Your task to perform on an android device: Open Maps and search for coffee Image 0: 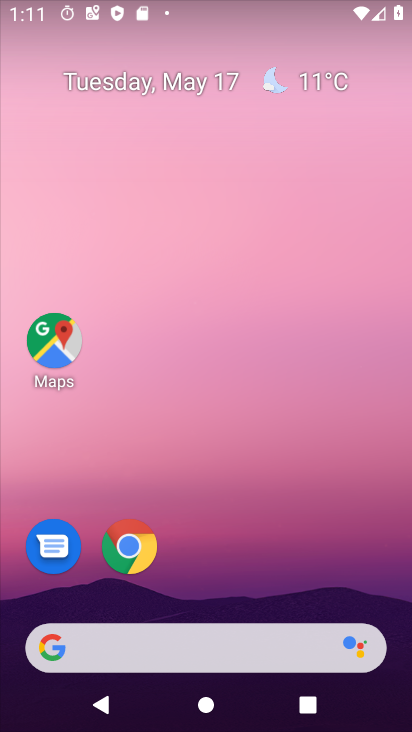
Step 0: click (58, 346)
Your task to perform on an android device: Open Maps and search for coffee Image 1: 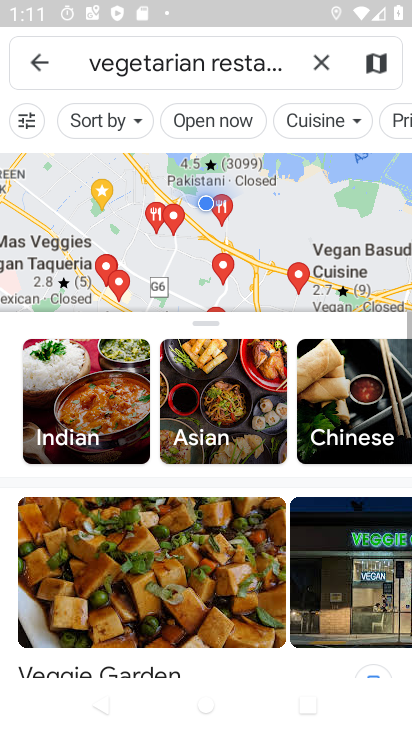
Step 1: click (322, 64)
Your task to perform on an android device: Open Maps and search for coffee Image 2: 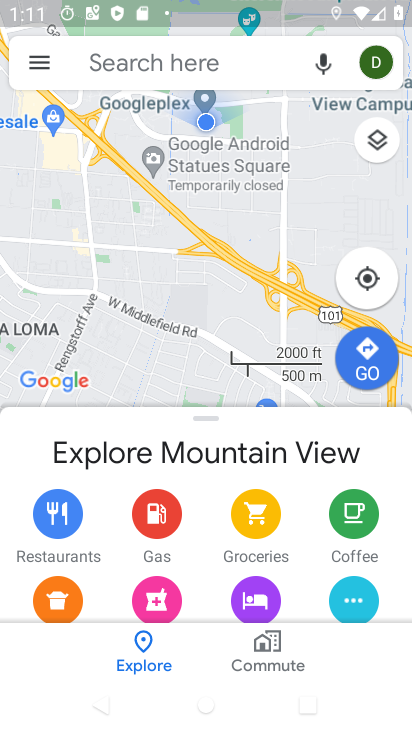
Step 2: click (230, 71)
Your task to perform on an android device: Open Maps and search for coffee Image 3: 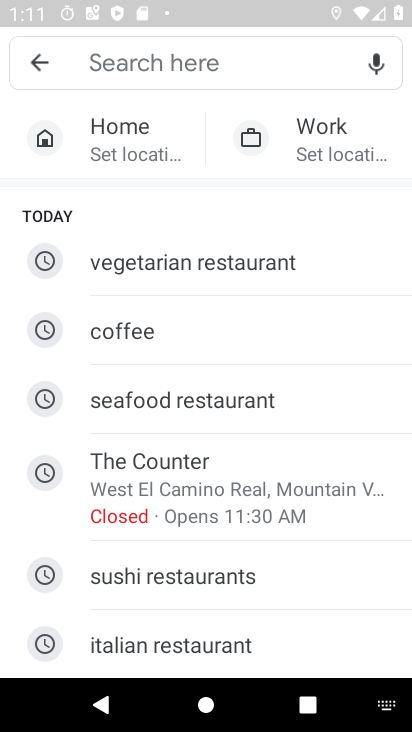
Step 3: click (144, 337)
Your task to perform on an android device: Open Maps and search for coffee Image 4: 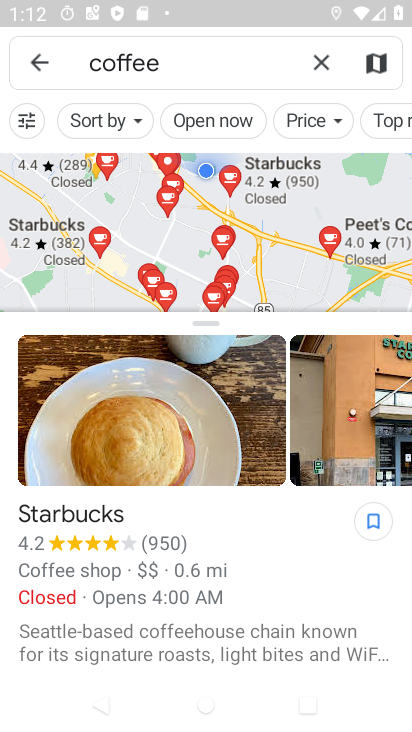
Step 4: task complete